Your task to perform on an android device: What's on my calendar tomorrow? Image 0: 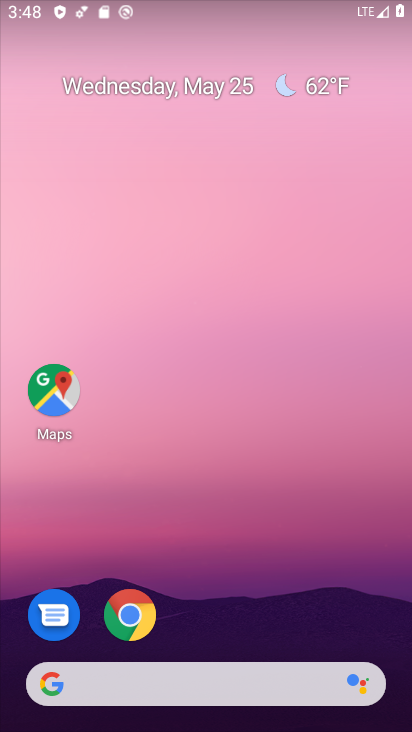
Step 0: click (187, 91)
Your task to perform on an android device: What's on my calendar tomorrow? Image 1: 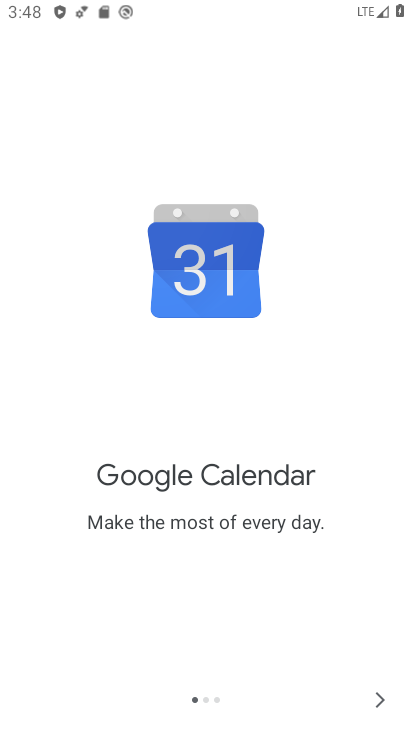
Step 1: click (372, 696)
Your task to perform on an android device: What's on my calendar tomorrow? Image 2: 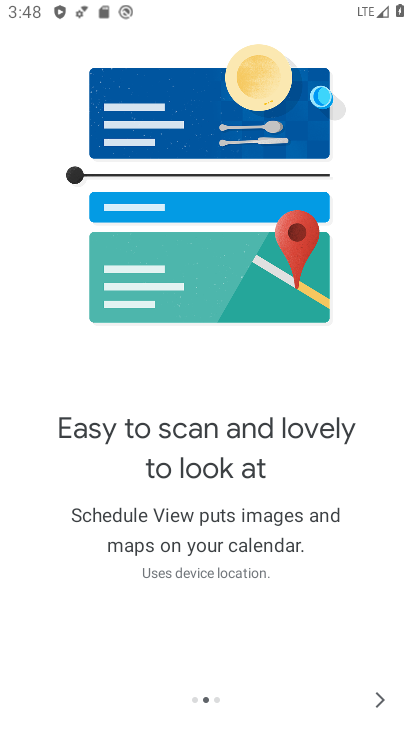
Step 2: click (372, 696)
Your task to perform on an android device: What's on my calendar tomorrow? Image 3: 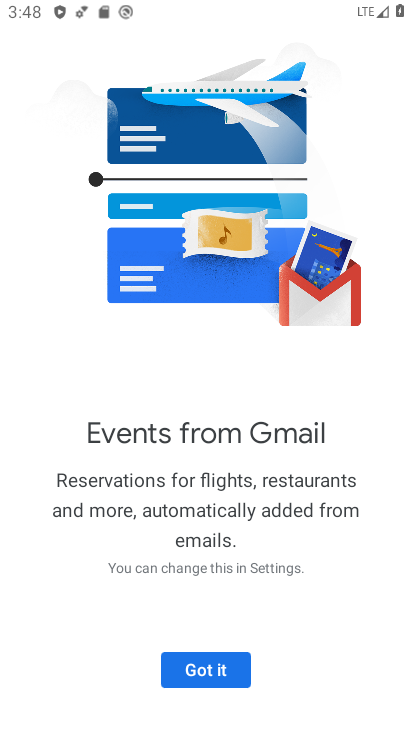
Step 3: click (207, 653)
Your task to perform on an android device: What's on my calendar tomorrow? Image 4: 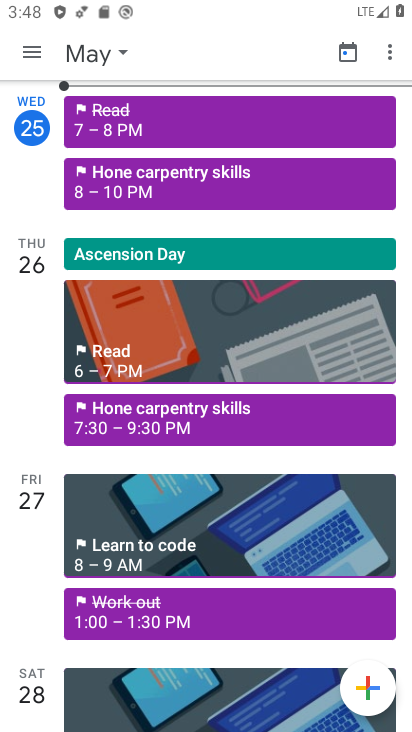
Step 4: task complete